Your task to perform on an android device: Search for pizza restaurants on Maps Image 0: 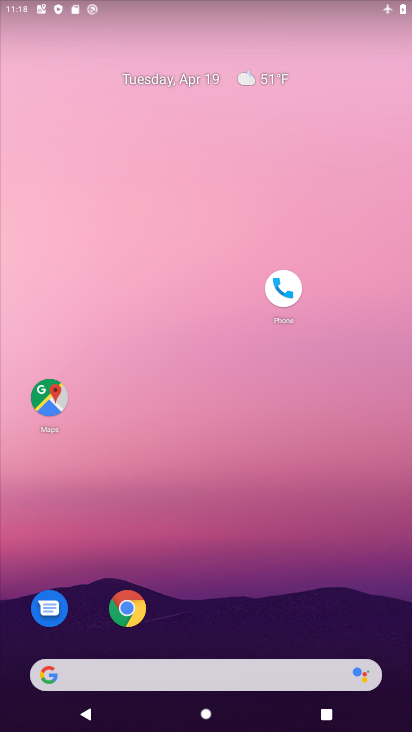
Step 0: drag from (99, 642) to (106, 81)
Your task to perform on an android device: Search for pizza restaurants on Maps Image 1: 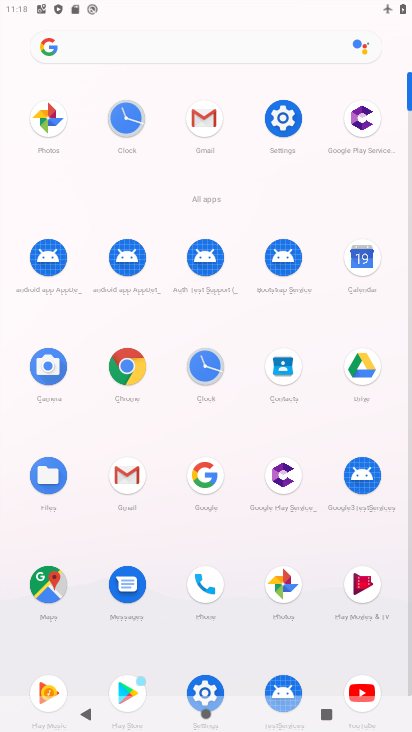
Step 1: drag from (240, 630) to (235, 339)
Your task to perform on an android device: Search for pizza restaurants on Maps Image 2: 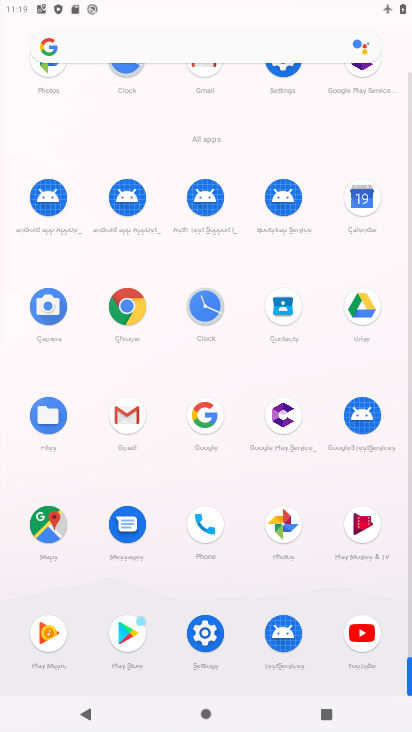
Step 2: drag from (224, 250) to (270, 228)
Your task to perform on an android device: Search for pizza restaurants on Maps Image 3: 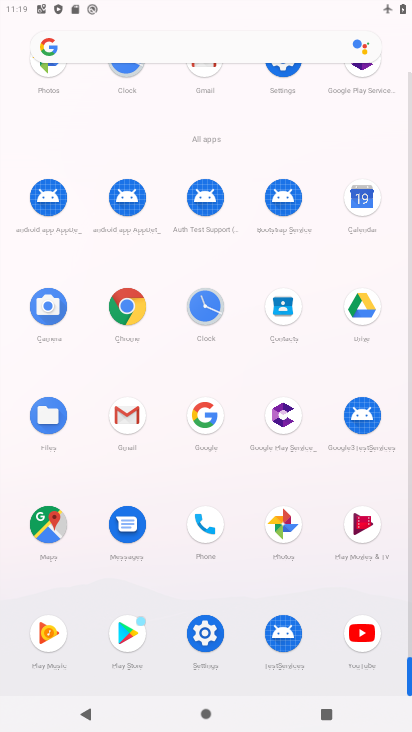
Step 3: drag from (230, 575) to (246, 261)
Your task to perform on an android device: Search for pizza restaurants on Maps Image 4: 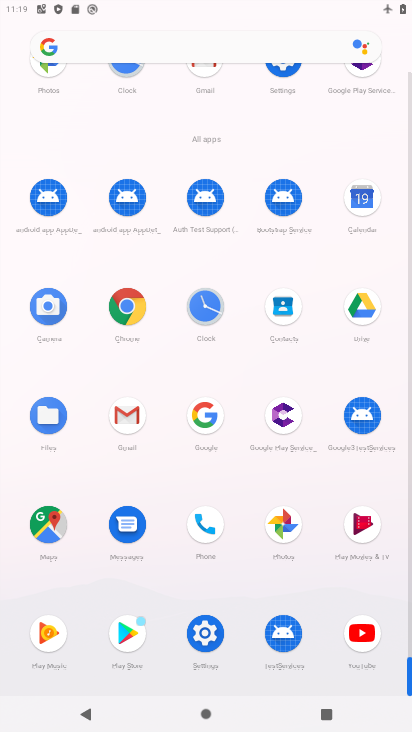
Step 4: drag from (239, 266) to (233, 502)
Your task to perform on an android device: Search for pizza restaurants on Maps Image 5: 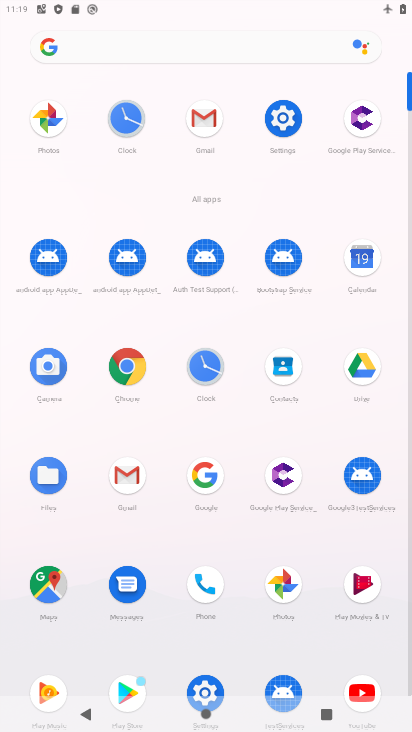
Step 5: click (41, 596)
Your task to perform on an android device: Search for pizza restaurants on Maps Image 6: 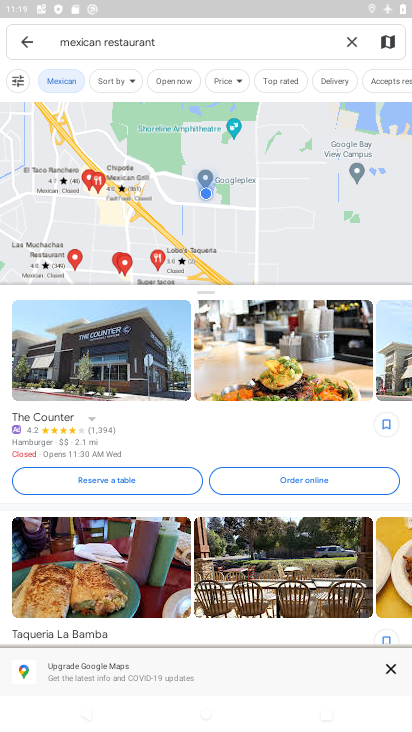
Step 6: click (355, 37)
Your task to perform on an android device: Search for pizza restaurants on Maps Image 7: 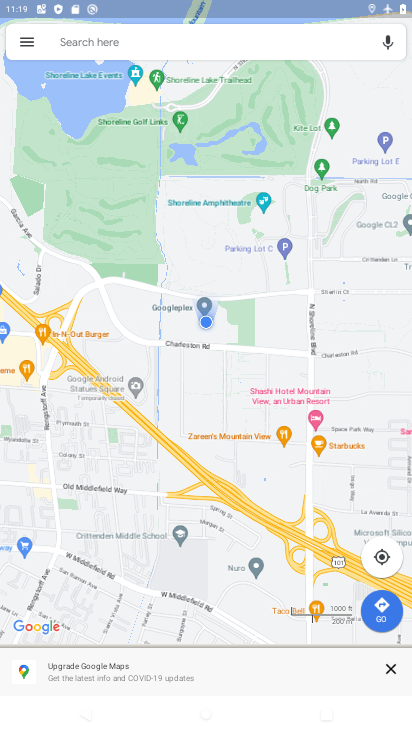
Step 7: click (142, 42)
Your task to perform on an android device: Search for pizza restaurants on Maps Image 8: 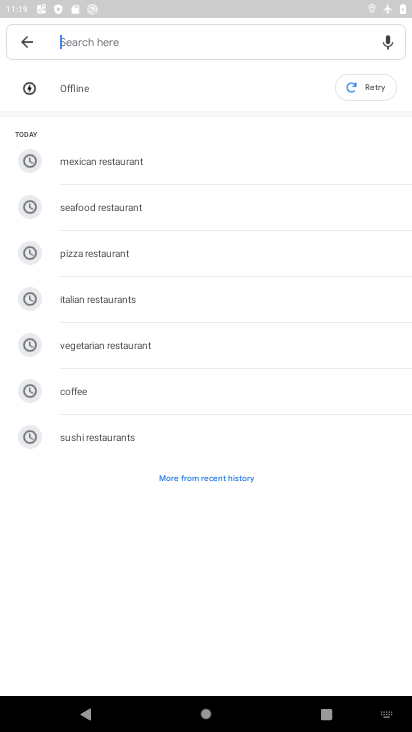
Step 8: type "pizza restaurants"
Your task to perform on an android device: Search for pizza restaurants on Maps Image 9: 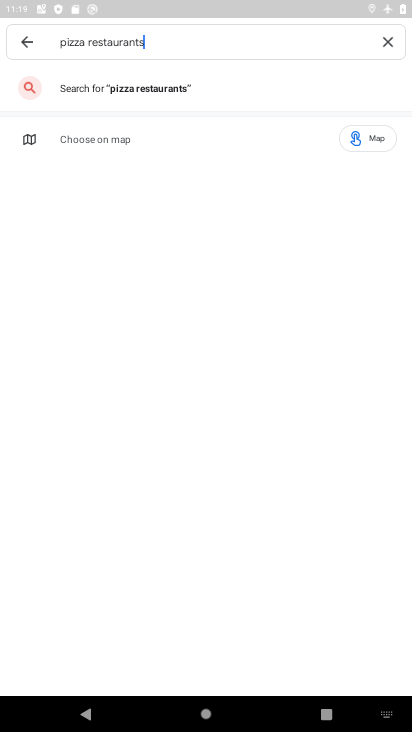
Step 9: click (149, 89)
Your task to perform on an android device: Search for pizza restaurants on Maps Image 10: 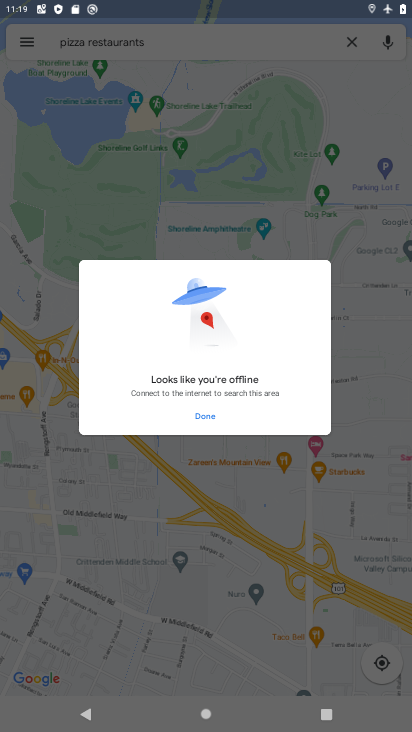
Step 10: task complete